Your task to perform on an android device: Open the stopwatch Image 0: 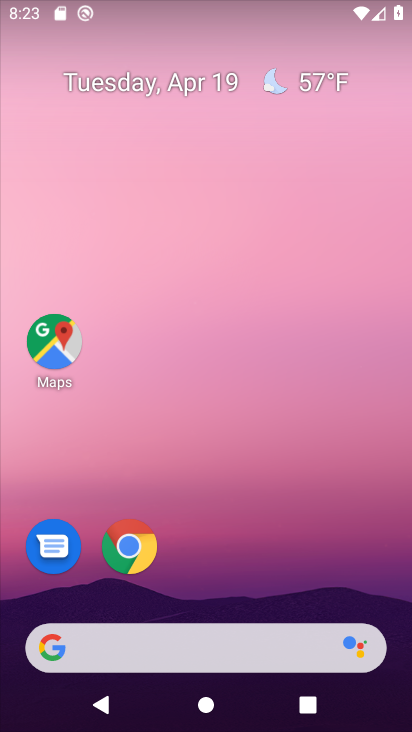
Step 0: drag from (226, 601) to (381, 6)
Your task to perform on an android device: Open the stopwatch Image 1: 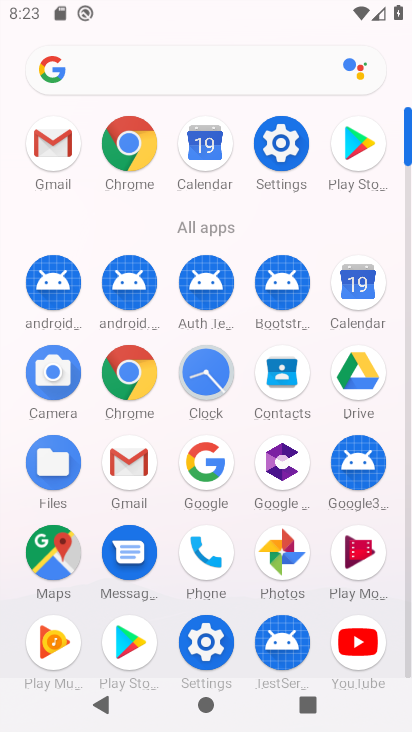
Step 1: click (216, 381)
Your task to perform on an android device: Open the stopwatch Image 2: 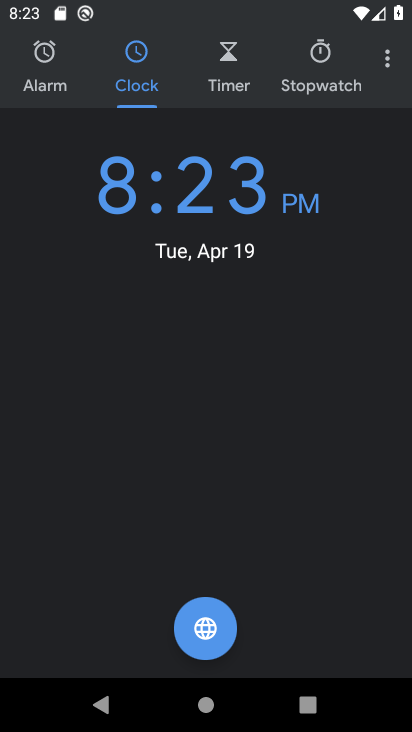
Step 2: click (310, 65)
Your task to perform on an android device: Open the stopwatch Image 3: 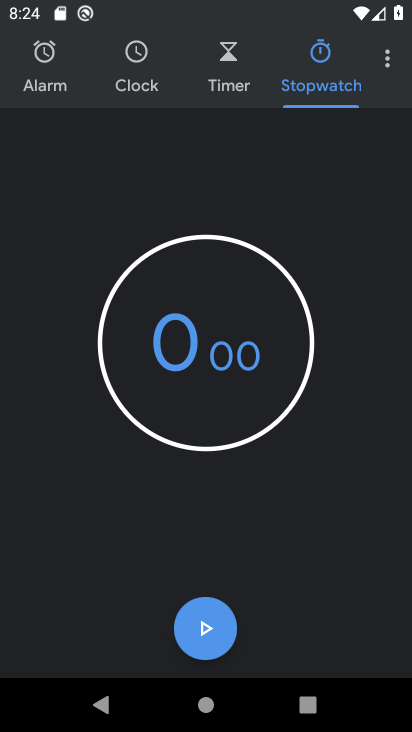
Step 3: task complete